Your task to perform on an android device: Open Wikipedia Image 0: 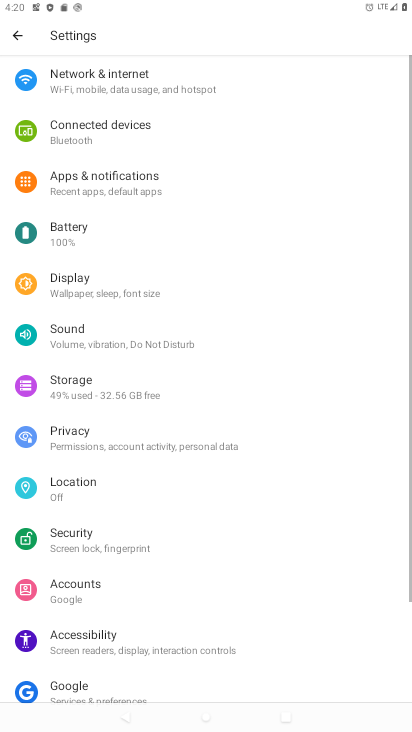
Step 0: press home button
Your task to perform on an android device: Open Wikipedia Image 1: 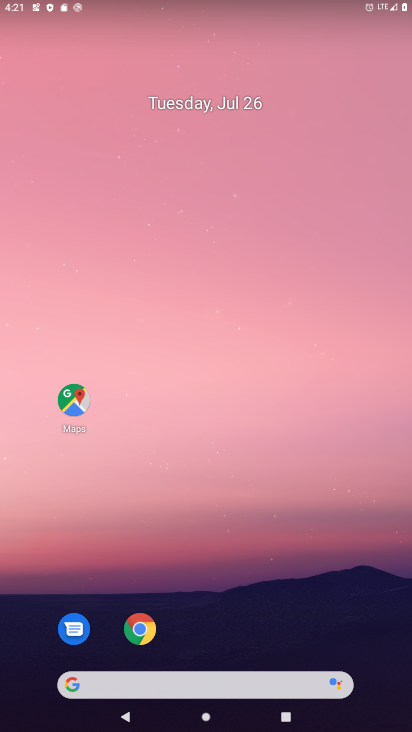
Step 1: click (142, 632)
Your task to perform on an android device: Open Wikipedia Image 2: 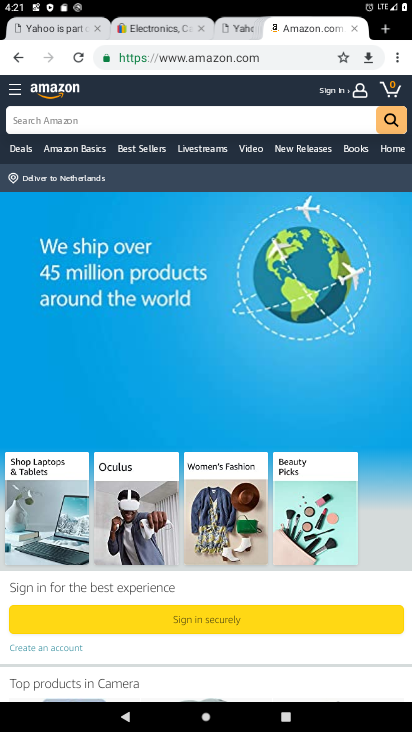
Step 2: click (399, 60)
Your task to perform on an android device: Open Wikipedia Image 3: 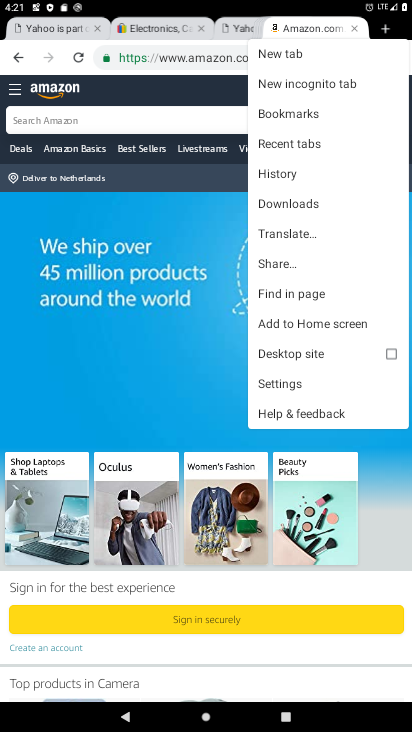
Step 3: click (293, 51)
Your task to perform on an android device: Open Wikipedia Image 4: 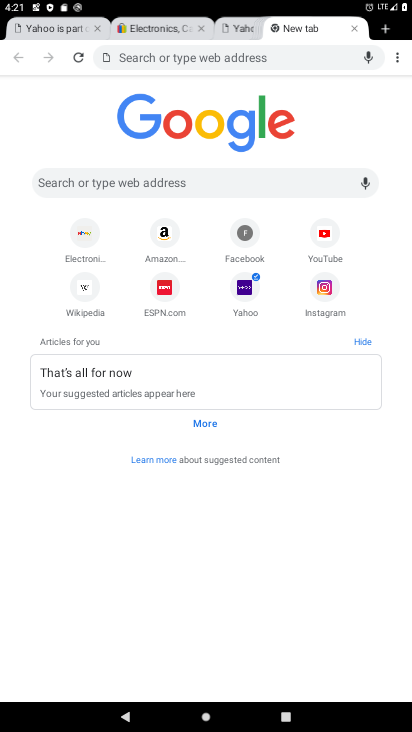
Step 4: click (86, 290)
Your task to perform on an android device: Open Wikipedia Image 5: 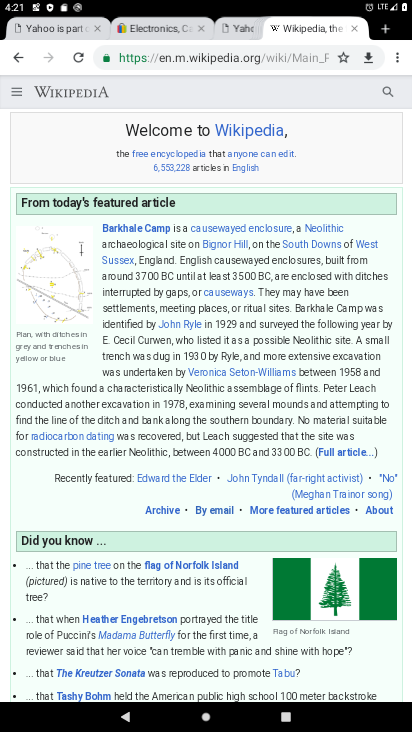
Step 5: task complete